Your task to perform on an android device: Open display settings Image 0: 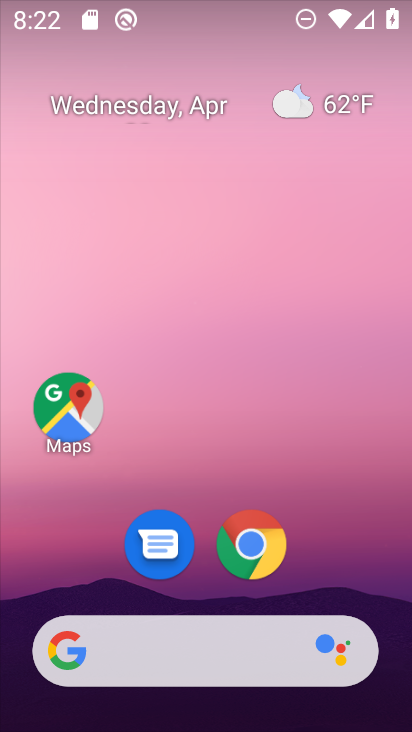
Step 0: drag from (203, 592) to (227, 34)
Your task to perform on an android device: Open display settings Image 1: 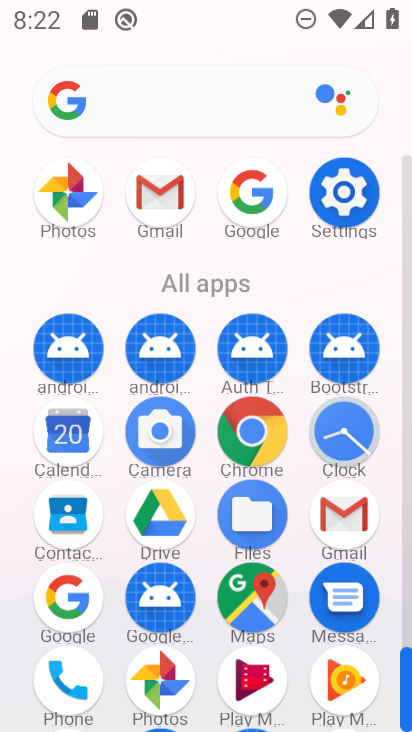
Step 1: click (351, 187)
Your task to perform on an android device: Open display settings Image 2: 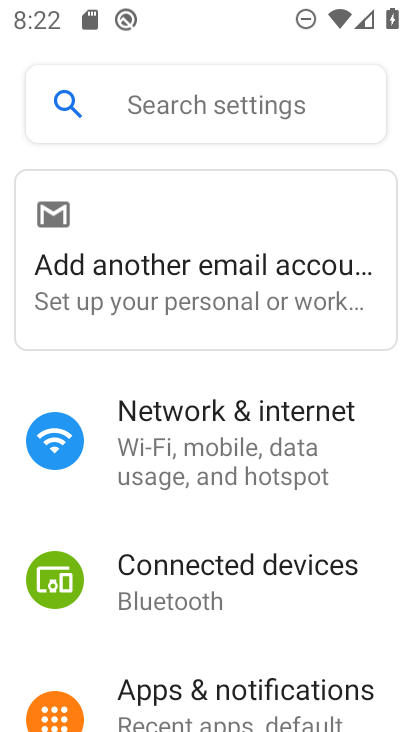
Step 2: drag from (236, 639) to (260, 221)
Your task to perform on an android device: Open display settings Image 3: 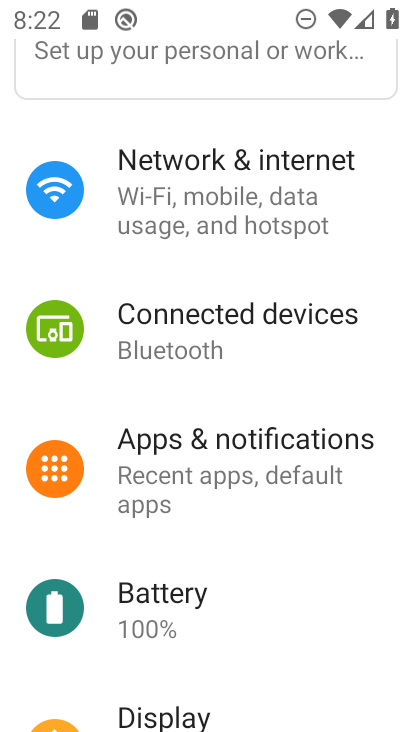
Step 3: drag from (218, 629) to (239, 329)
Your task to perform on an android device: Open display settings Image 4: 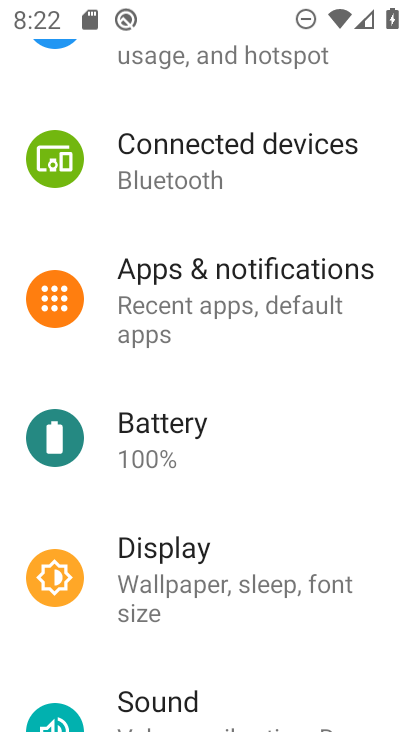
Step 4: drag from (225, 586) to (269, 291)
Your task to perform on an android device: Open display settings Image 5: 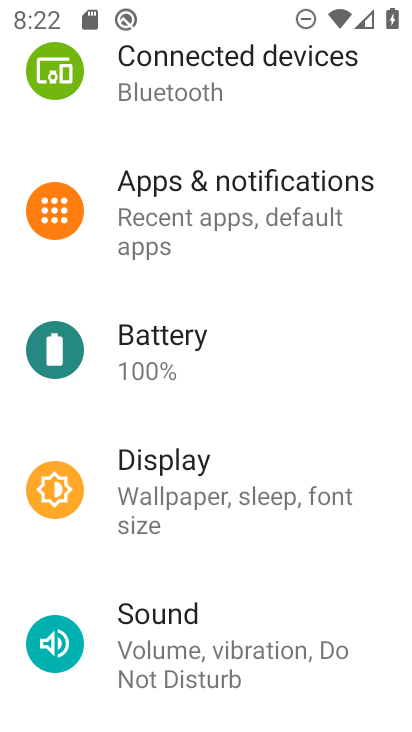
Step 5: drag from (221, 628) to (235, 342)
Your task to perform on an android device: Open display settings Image 6: 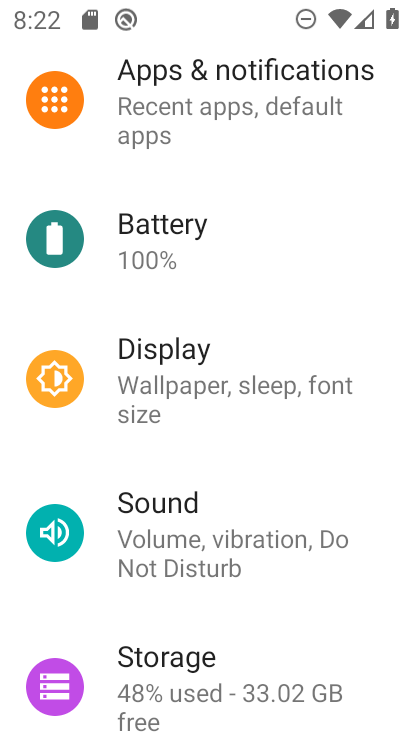
Step 6: click (259, 242)
Your task to perform on an android device: Open display settings Image 7: 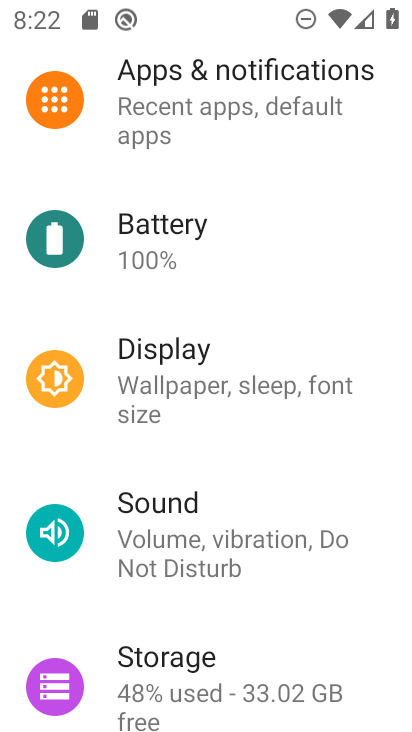
Step 7: click (212, 371)
Your task to perform on an android device: Open display settings Image 8: 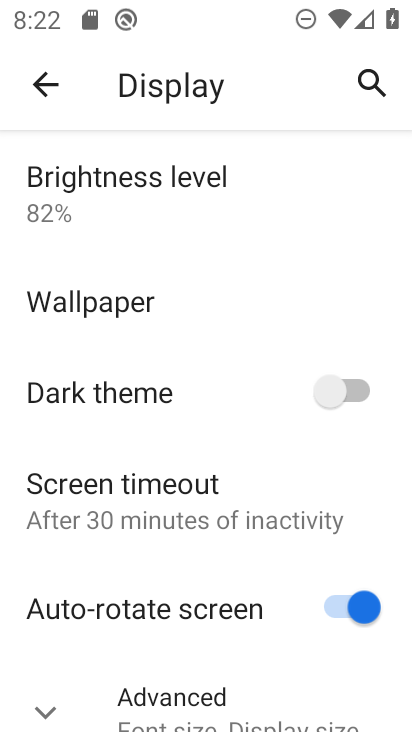
Step 8: task complete